Your task to perform on an android device: turn off location Image 0: 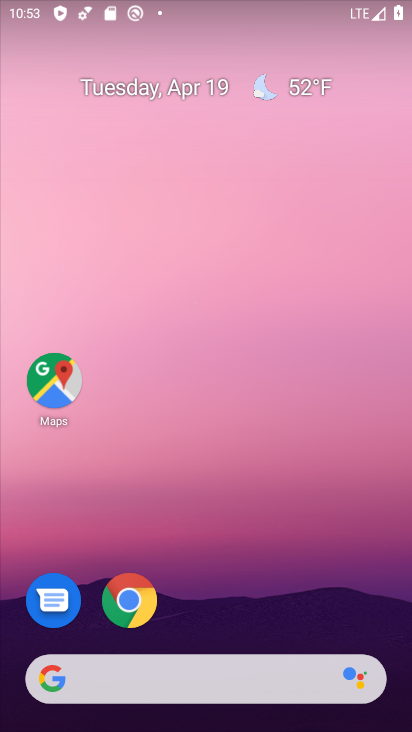
Step 0: drag from (208, 367) to (108, 26)
Your task to perform on an android device: turn off location Image 1: 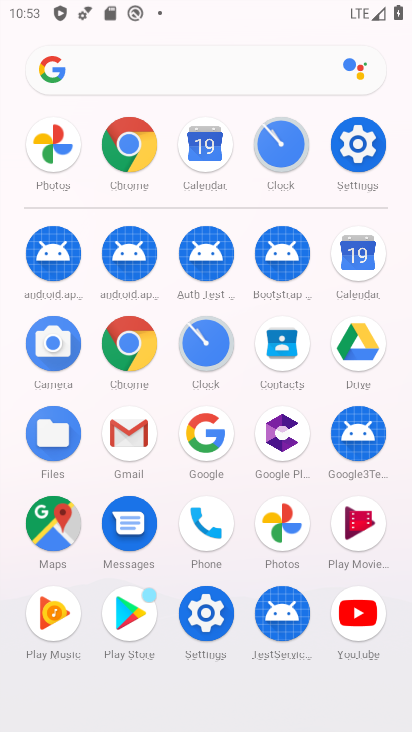
Step 1: click (353, 134)
Your task to perform on an android device: turn off location Image 2: 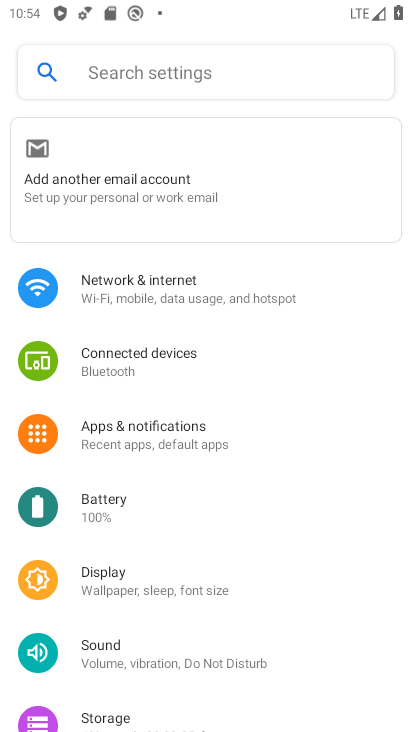
Step 2: drag from (143, 606) to (177, 193)
Your task to perform on an android device: turn off location Image 3: 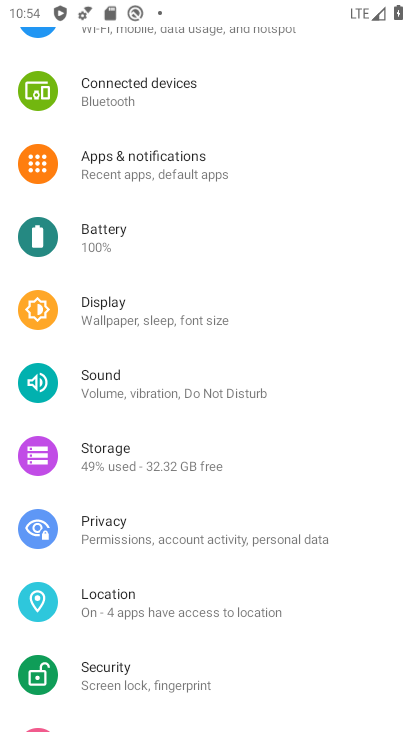
Step 3: click (175, 601)
Your task to perform on an android device: turn off location Image 4: 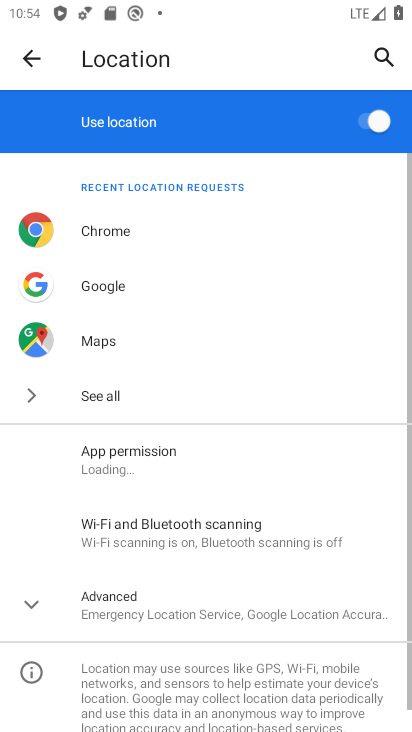
Step 4: click (331, 136)
Your task to perform on an android device: turn off location Image 5: 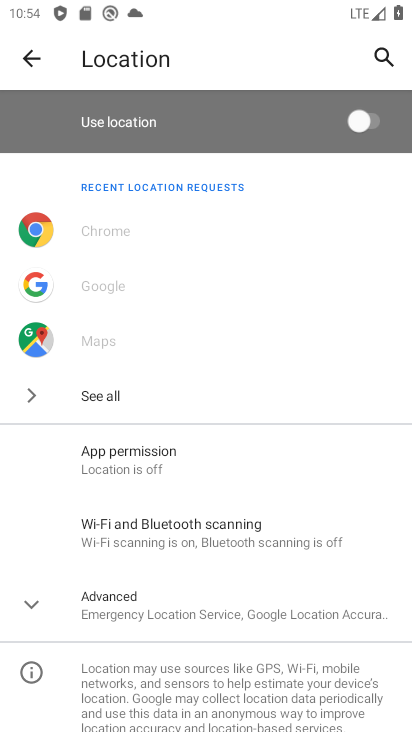
Step 5: task complete